Your task to perform on an android device: turn notification dots on Image 0: 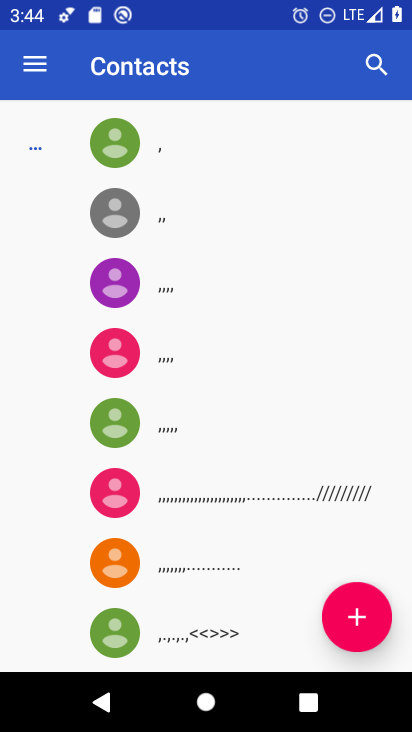
Step 0: press home button
Your task to perform on an android device: turn notification dots on Image 1: 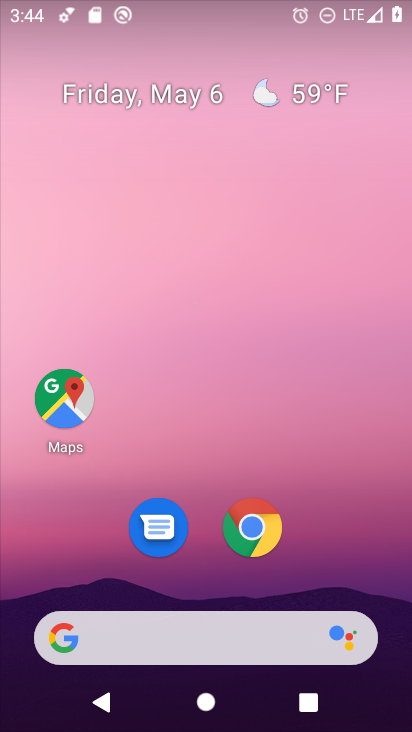
Step 1: drag from (309, 526) to (318, 74)
Your task to perform on an android device: turn notification dots on Image 2: 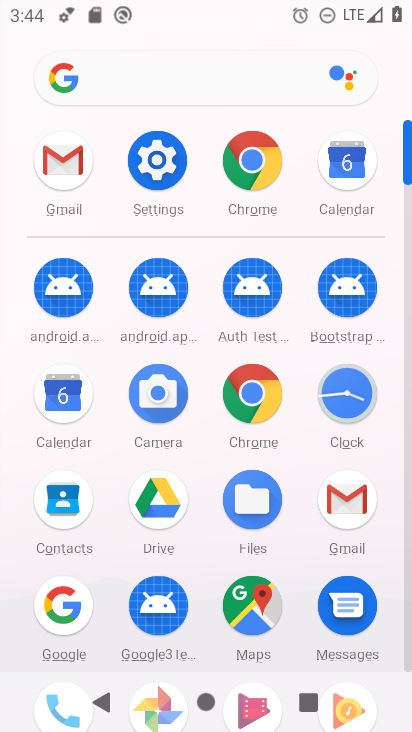
Step 2: click (138, 157)
Your task to perform on an android device: turn notification dots on Image 3: 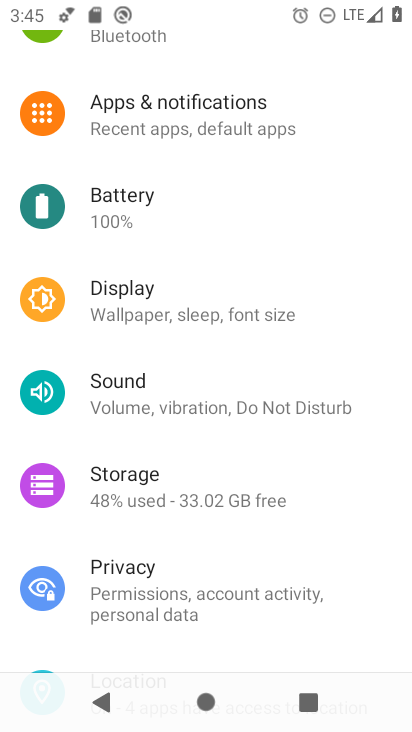
Step 3: drag from (229, 273) to (249, 515)
Your task to perform on an android device: turn notification dots on Image 4: 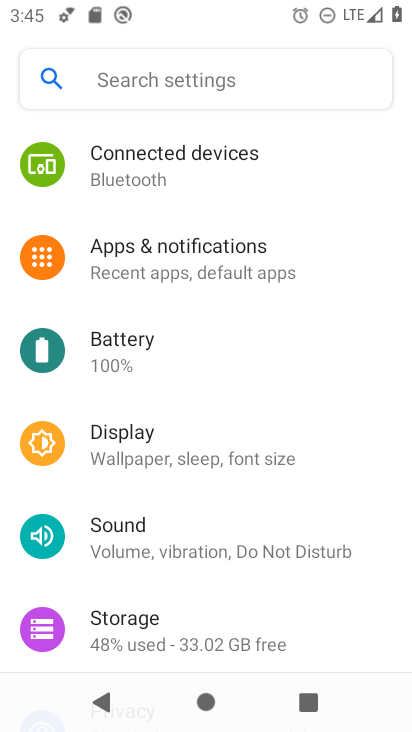
Step 4: click (180, 253)
Your task to perform on an android device: turn notification dots on Image 5: 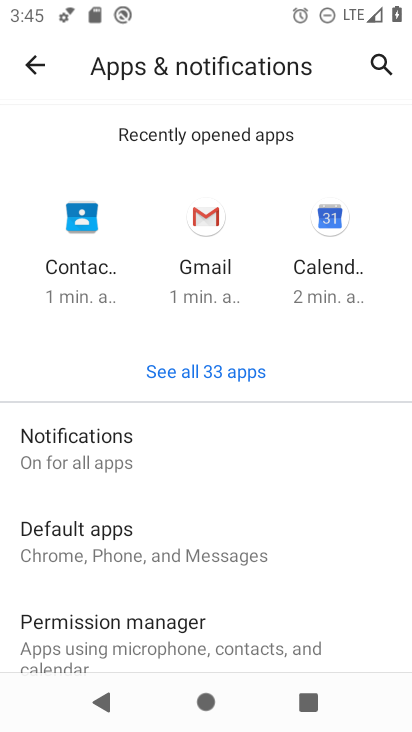
Step 5: click (137, 451)
Your task to perform on an android device: turn notification dots on Image 6: 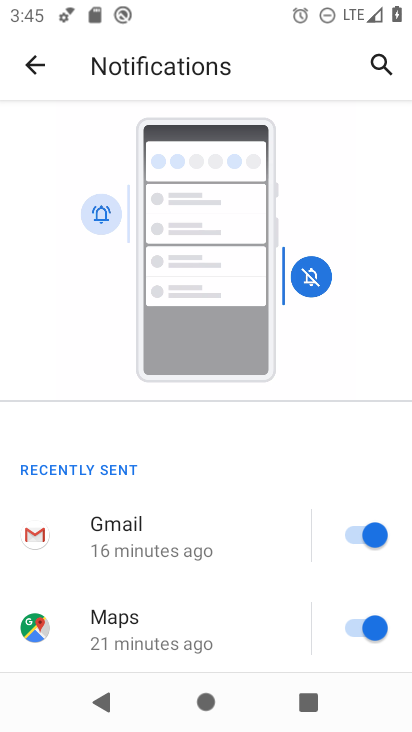
Step 6: drag from (178, 569) to (237, 3)
Your task to perform on an android device: turn notification dots on Image 7: 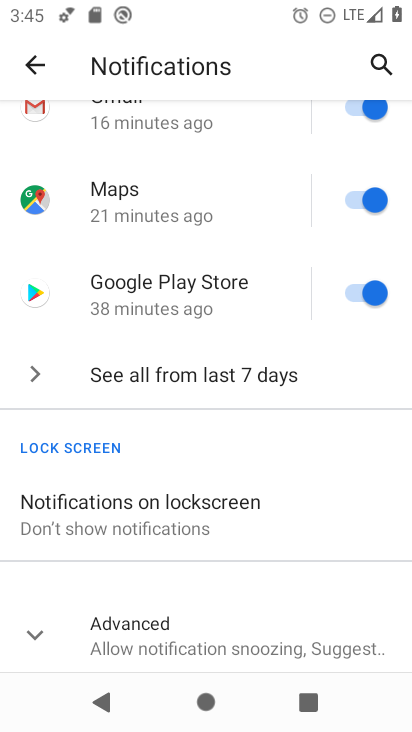
Step 7: click (192, 628)
Your task to perform on an android device: turn notification dots on Image 8: 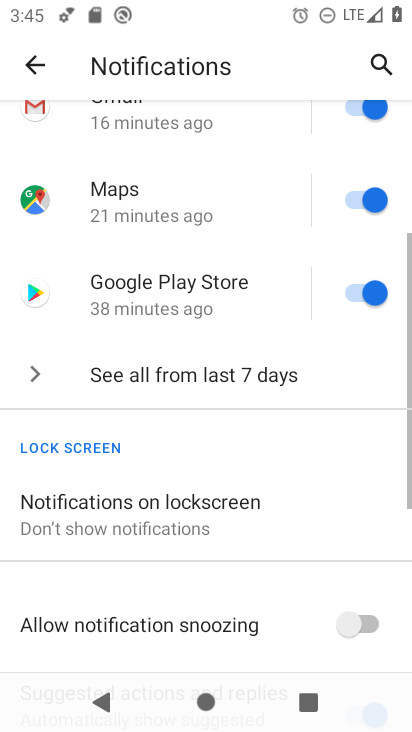
Step 8: task complete